Your task to perform on an android device: Show me the alarms in the clock app Image 0: 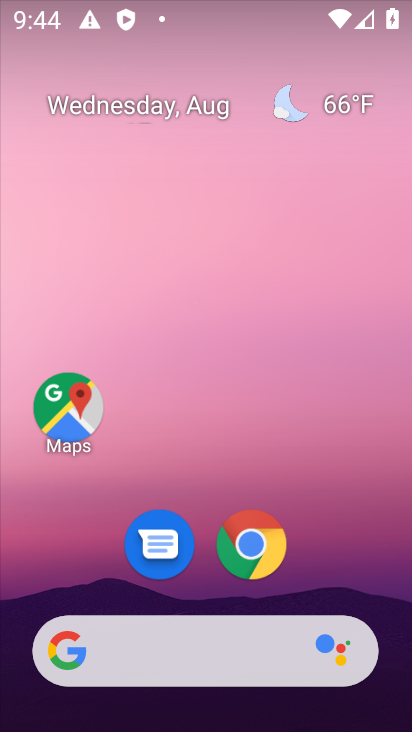
Step 0: drag from (196, 479) to (216, 171)
Your task to perform on an android device: Show me the alarms in the clock app Image 1: 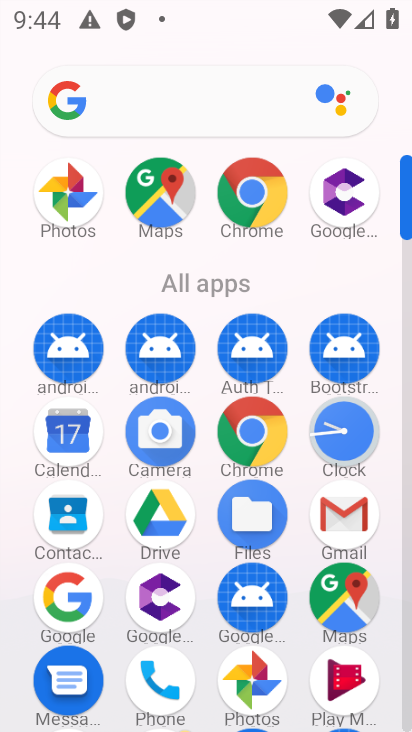
Step 1: task complete